Your task to perform on an android device: turn off notifications settings in the gmail app Image 0: 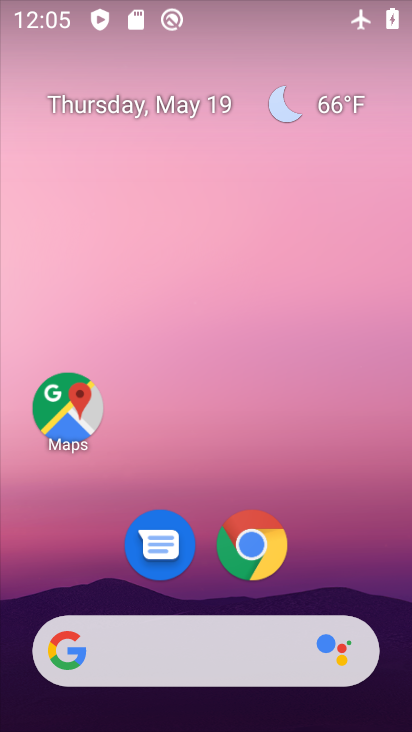
Step 0: drag from (168, 717) to (280, 26)
Your task to perform on an android device: turn off notifications settings in the gmail app Image 1: 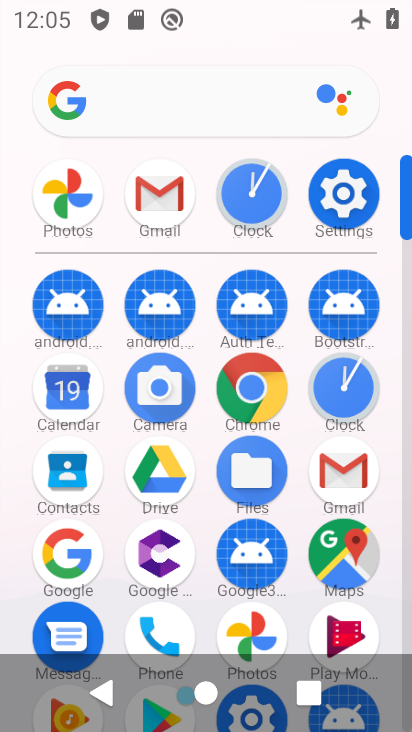
Step 1: click (152, 192)
Your task to perform on an android device: turn off notifications settings in the gmail app Image 2: 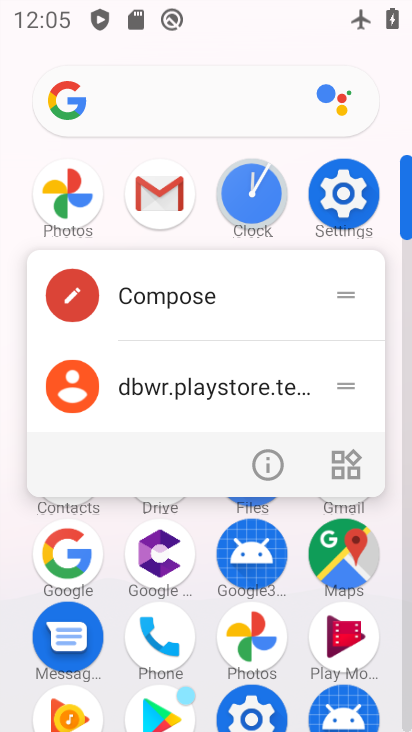
Step 2: click (267, 460)
Your task to perform on an android device: turn off notifications settings in the gmail app Image 3: 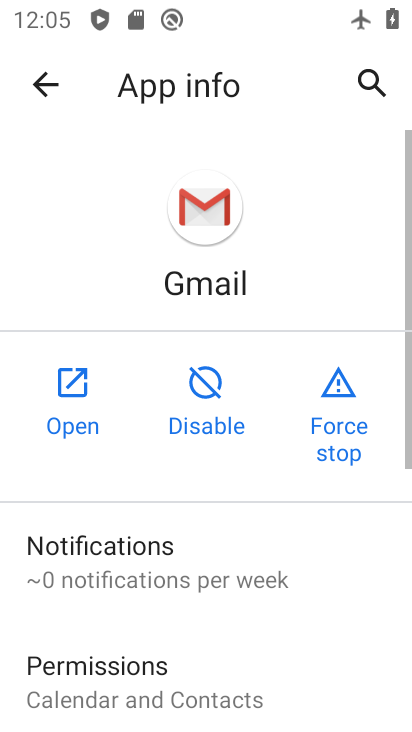
Step 3: click (226, 548)
Your task to perform on an android device: turn off notifications settings in the gmail app Image 4: 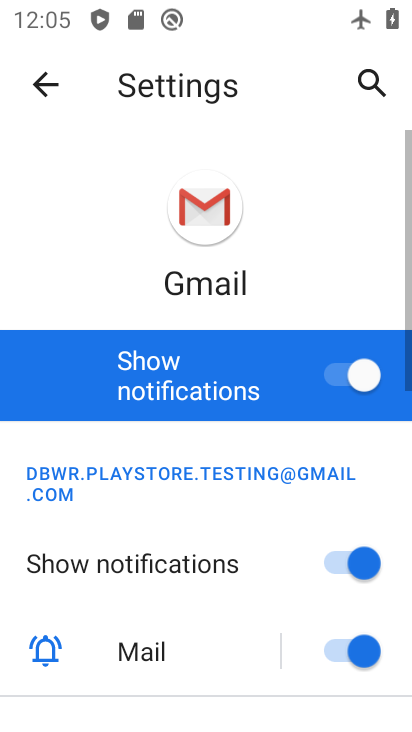
Step 4: click (357, 364)
Your task to perform on an android device: turn off notifications settings in the gmail app Image 5: 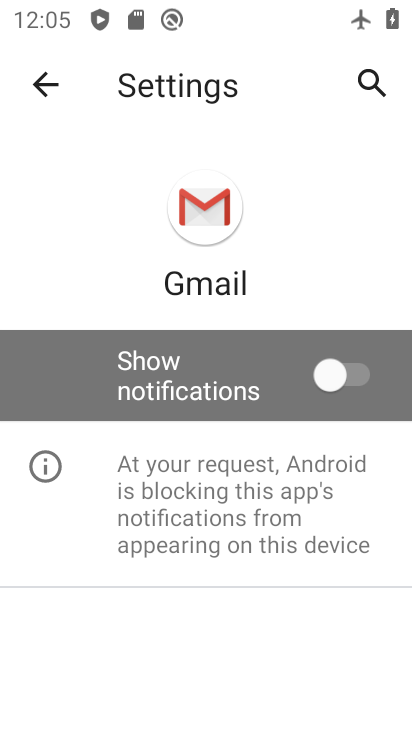
Step 5: task complete